Your task to perform on an android device: toggle location history Image 0: 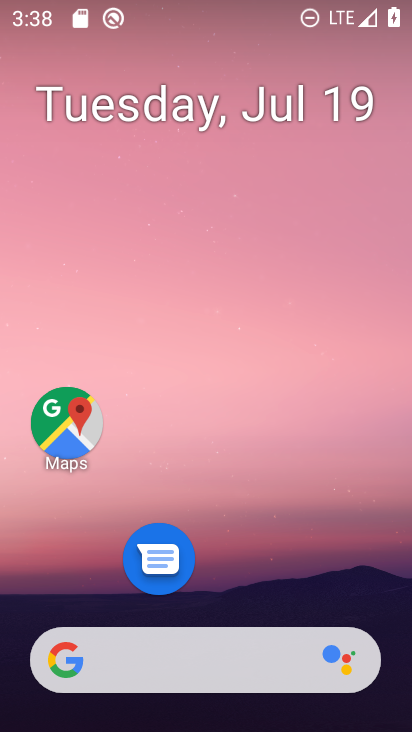
Step 0: drag from (191, 577) to (281, 60)
Your task to perform on an android device: toggle location history Image 1: 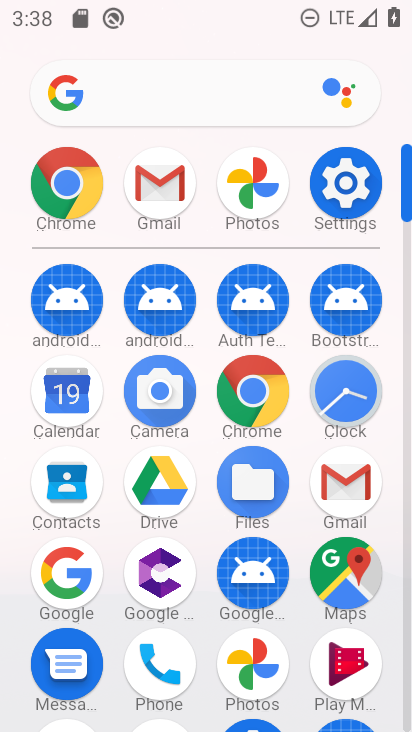
Step 1: click (361, 193)
Your task to perform on an android device: toggle location history Image 2: 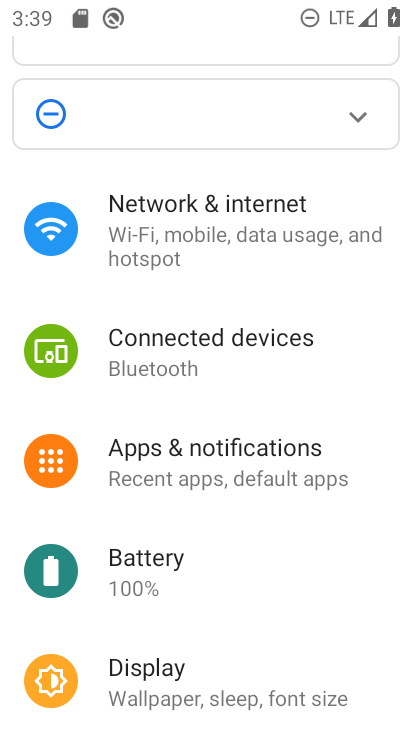
Step 2: drag from (218, 585) to (218, 410)
Your task to perform on an android device: toggle location history Image 3: 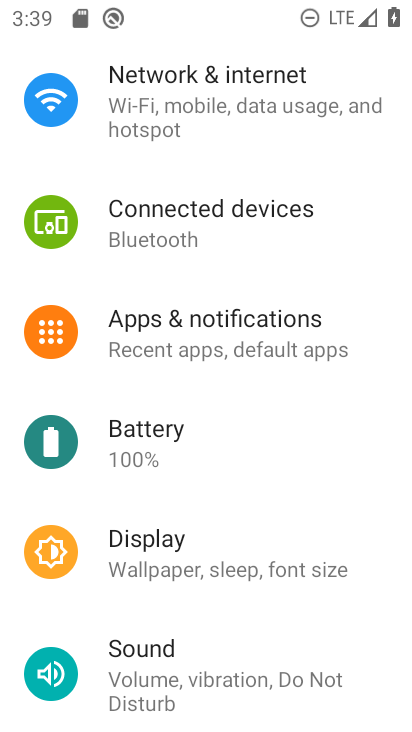
Step 3: drag from (160, 607) to (219, 249)
Your task to perform on an android device: toggle location history Image 4: 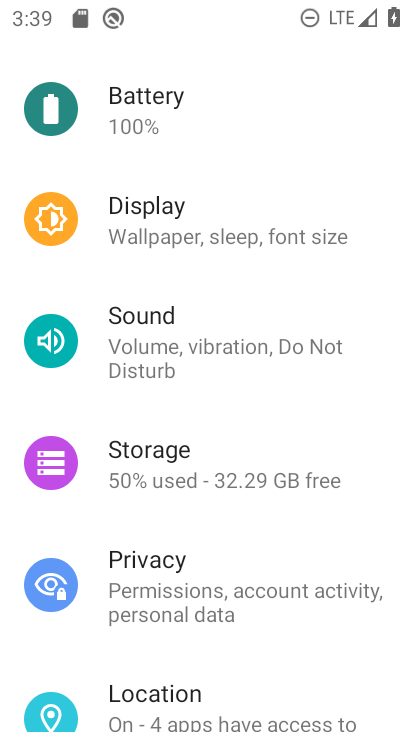
Step 4: click (177, 693)
Your task to perform on an android device: toggle location history Image 5: 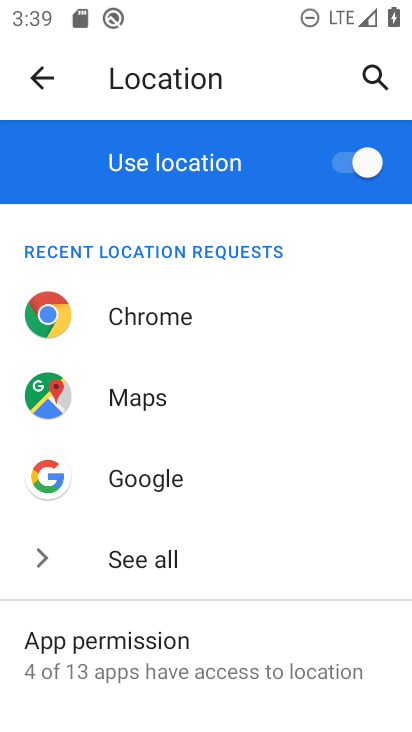
Step 5: drag from (170, 605) to (230, 392)
Your task to perform on an android device: toggle location history Image 6: 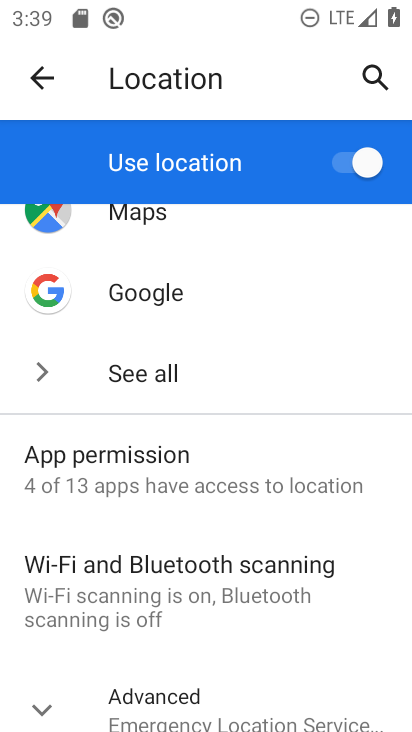
Step 6: click (143, 696)
Your task to perform on an android device: toggle location history Image 7: 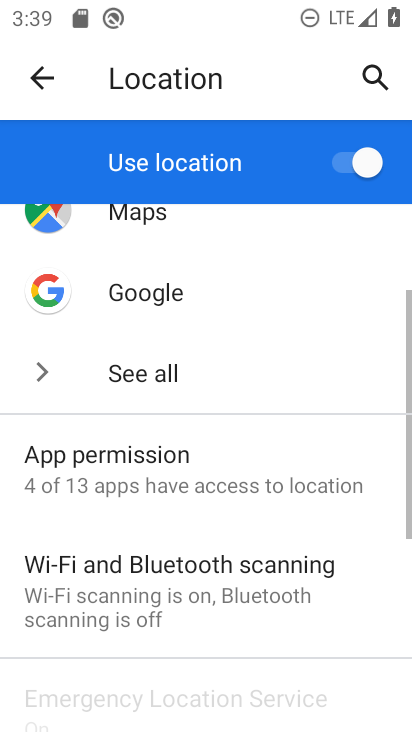
Step 7: drag from (178, 514) to (280, 146)
Your task to perform on an android device: toggle location history Image 8: 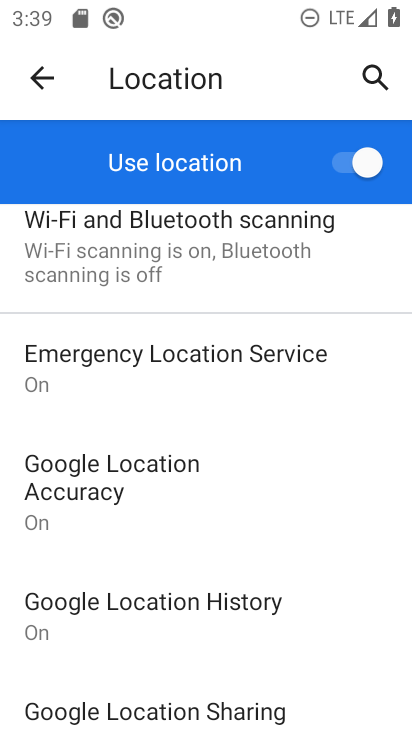
Step 8: drag from (193, 614) to (235, 240)
Your task to perform on an android device: toggle location history Image 9: 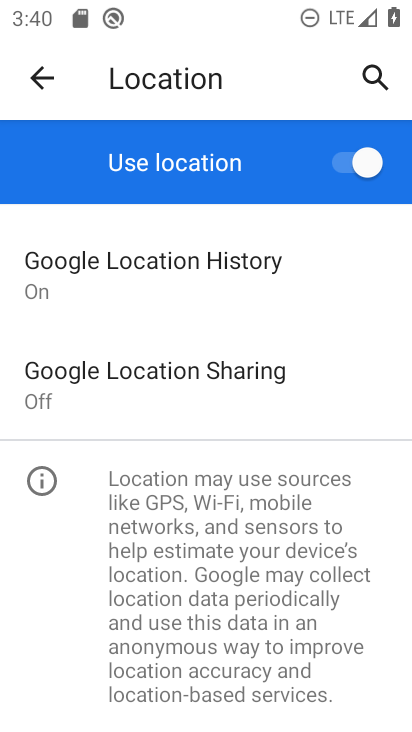
Step 9: click (213, 296)
Your task to perform on an android device: toggle location history Image 10: 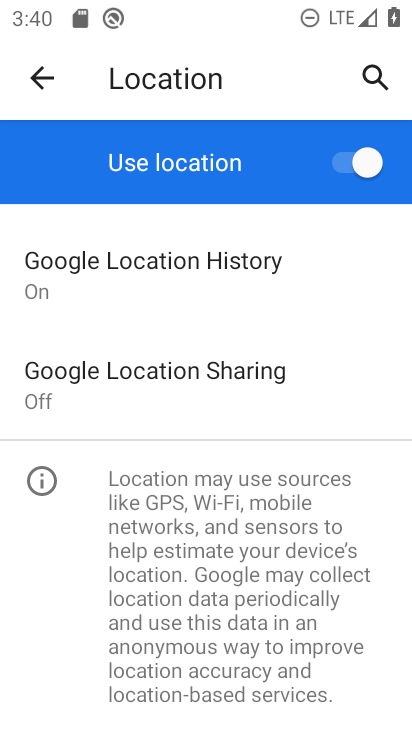
Step 10: click (228, 274)
Your task to perform on an android device: toggle location history Image 11: 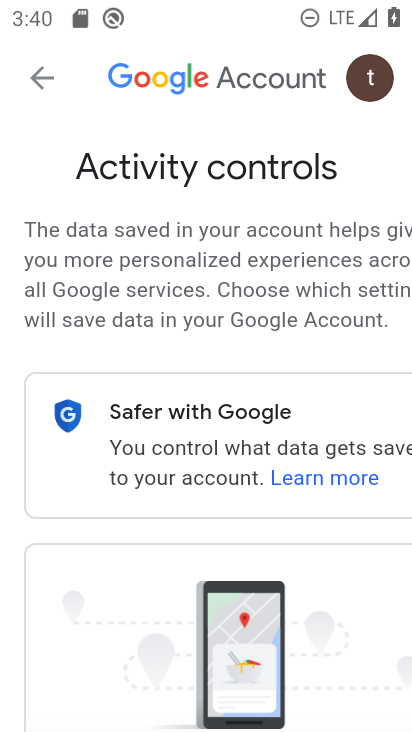
Step 11: task complete